Your task to perform on an android device: search for starred emails in the gmail app Image 0: 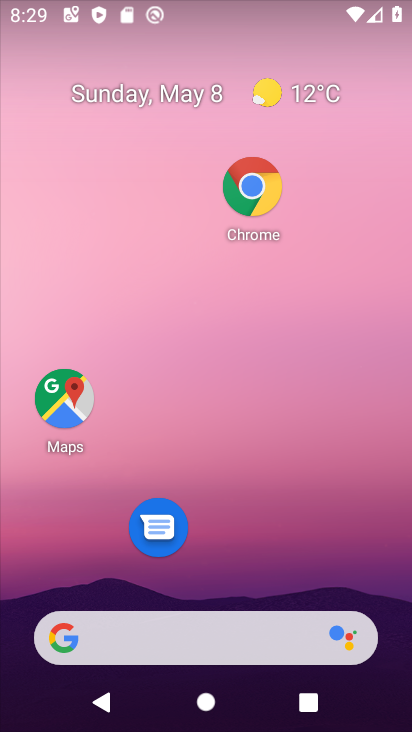
Step 0: drag from (327, 361) to (327, 215)
Your task to perform on an android device: search for starred emails in the gmail app Image 1: 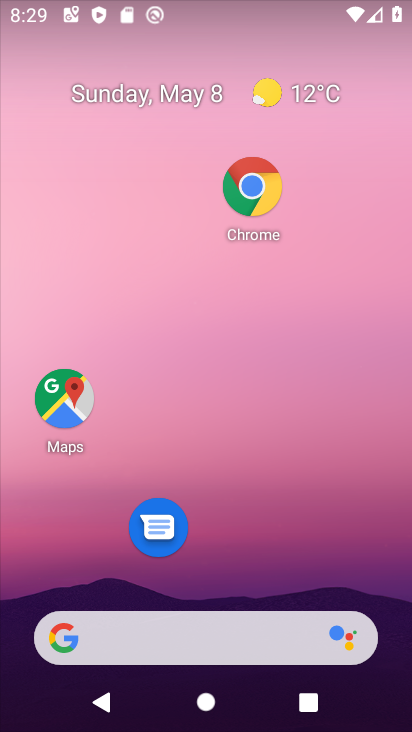
Step 1: drag from (311, 505) to (351, 168)
Your task to perform on an android device: search for starred emails in the gmail app Image 2: 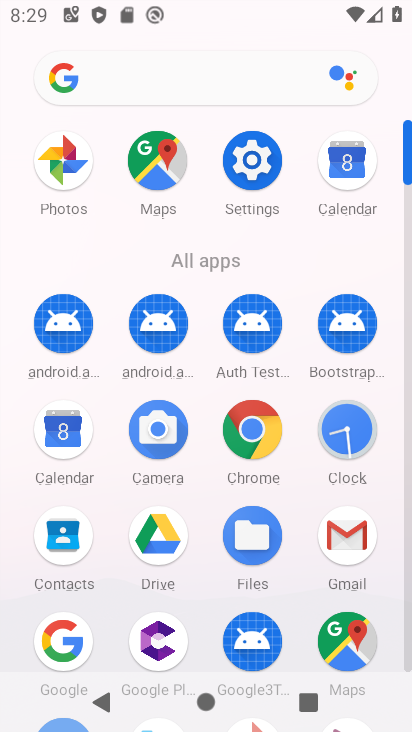
Step 2: click (352, 534)
Your task to perform on an android device: search for starred emails in the gmail app Image 3: 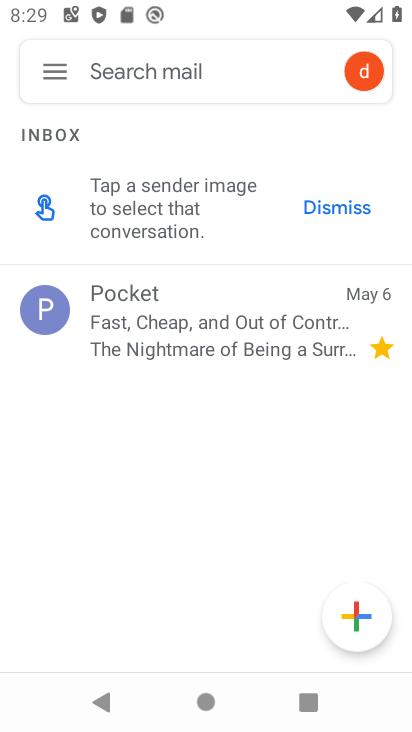
Step 3: click (45, 68)
Your task to perform on an android device: search for starred emails in the gmail app Image 4: 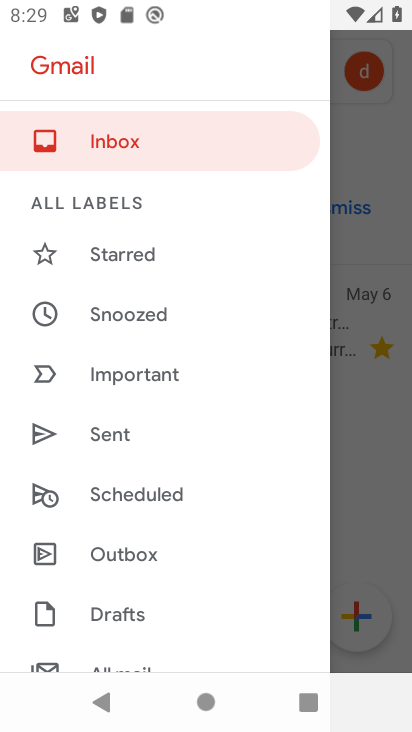
Step 4: click (121, 255)
Your task to perform on an android device: search for starred emails in the gmail app Image 5: 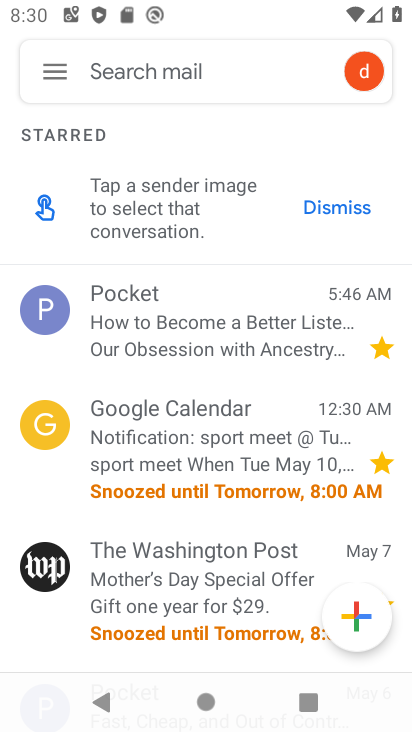
Step 5: task complete